Your task to perform on an android device: Open Google Chrome and open the bookmarks view Image 0: 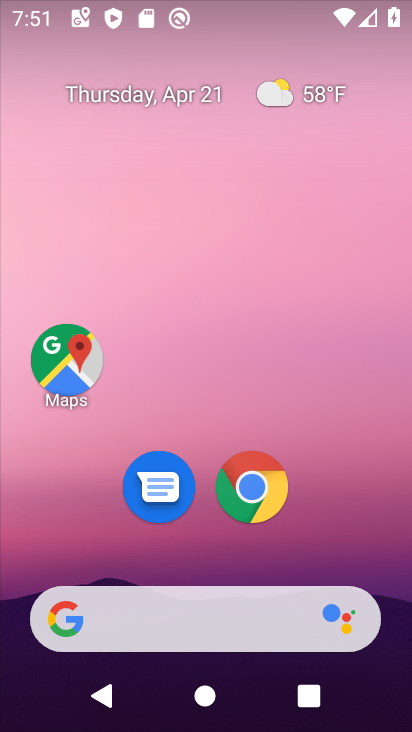
Step 0: drag from (328, 456) to (226, 14)
Your task to perform on an android device: Open Google Chrome and open the bookmarks view Image 1: 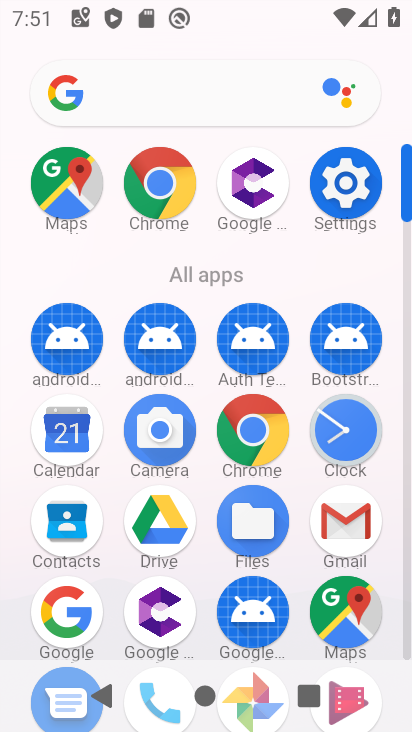
Step 1: drag from (9, 488) to (6, 202)
Your task to perform on an android device: Open Google Chrome and open the bookmarks view Image 2: 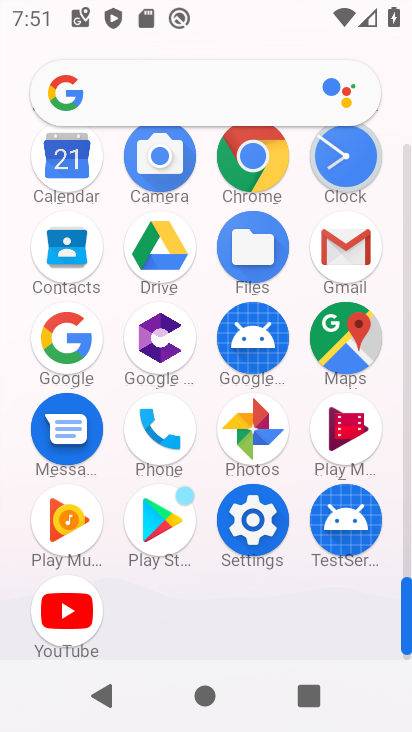
Step 2: click (251, 155)
Your task to perform on an android device: Open Google Chrome and open the bookmarks view Image 3: 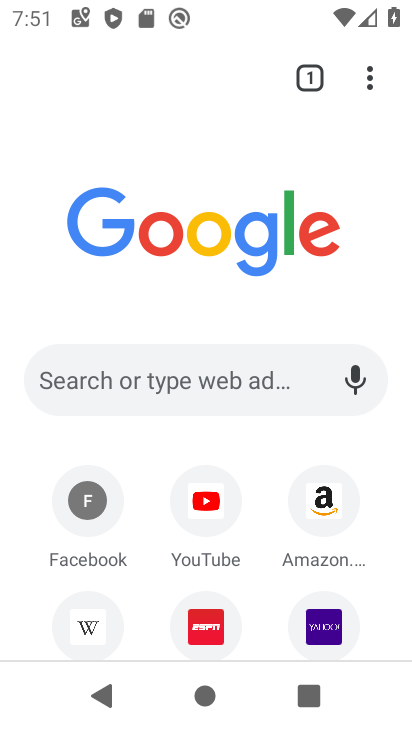
Step 3: task complete